Your task to perform on an android device: read, delete, or share a saved page in the chrome app Image 0: 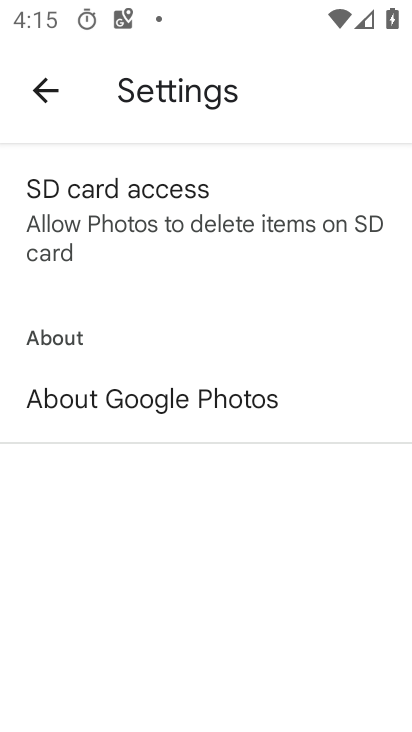
Step 0: press home button
Your task to perform on an android device: read, delete, or share a saved page in the chrome app Image 1: 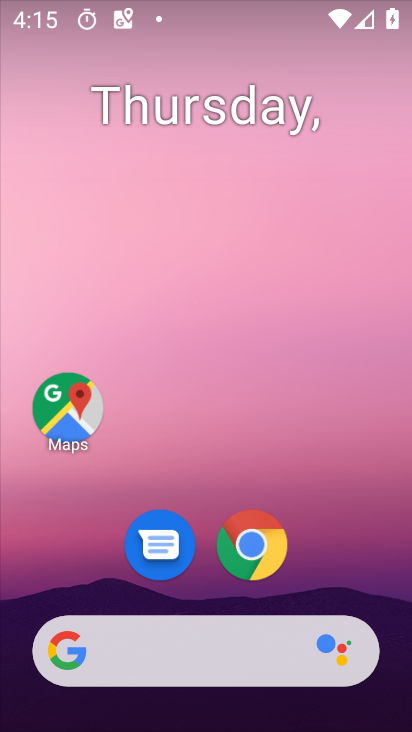
Step 1: click (251, 576)
Your task to perform on an android device: read, delete, or share a saved page in the chrome app Image 2: 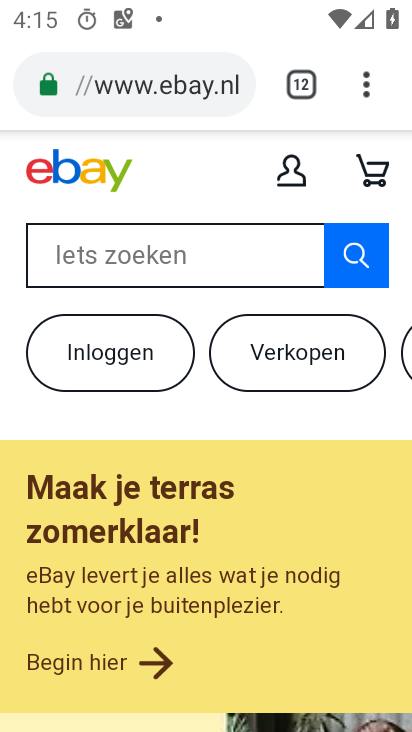
Step 2: click (365, 87)
Your task to perform on an android device: read, delete, or share a saved page in the chrome app Image 3: 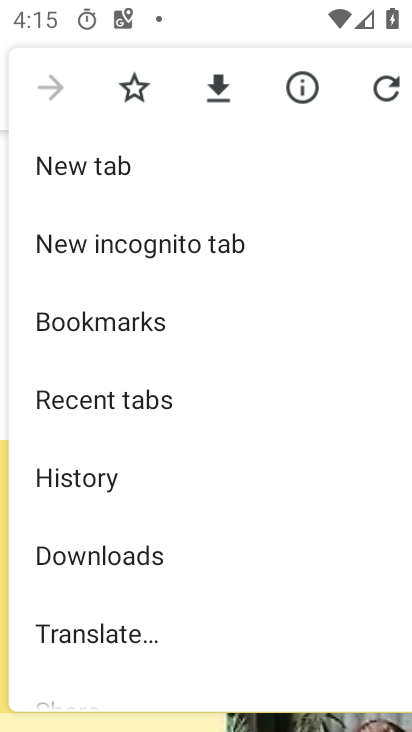
Step 3: click (93, 553)
Your task to perform on an android device: read, delete, or share a saved page in the chrome app Image 4: 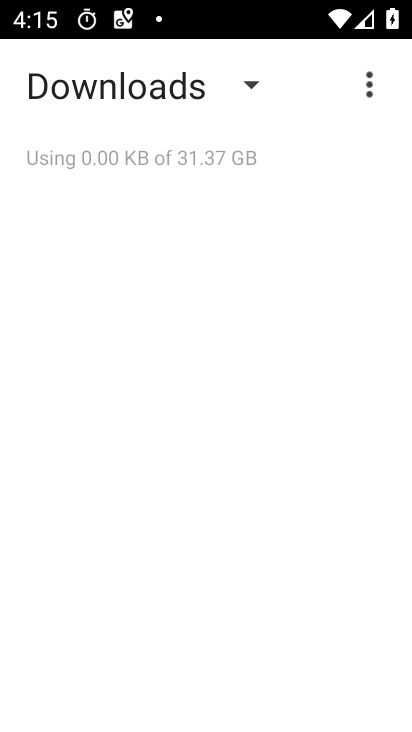
Step 4: click (251, 82)
Your task to perform on an android device: read, delete, or share a saved page in the chrome app Image 5: 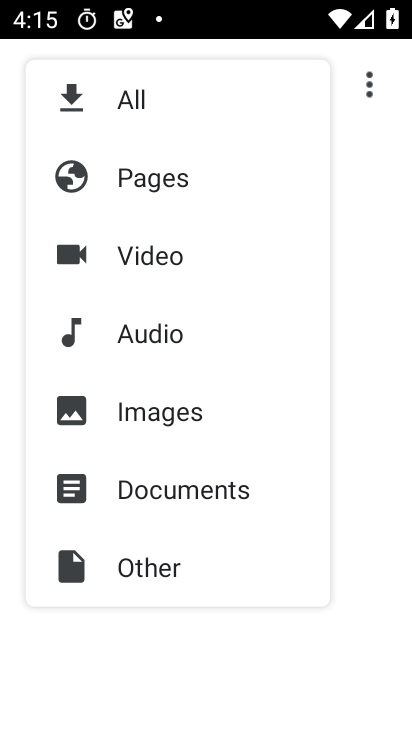
Step 5: click (147, 182)
Your task to perform on an android device: read, delete, or share a saved page in the chrome app Image 6: 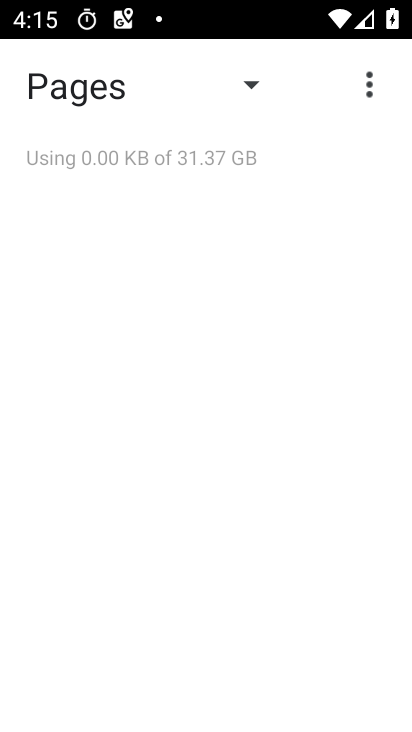
Step 6: task complete